Your task to perform on an android device: turn on showing notifications on the lock screen Image 0: 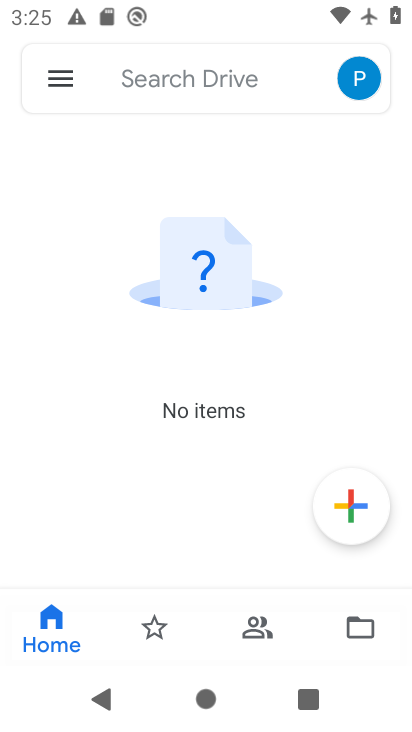
Step 0: press home button
Your task to perform on an android device: turn on showing notifications on the lock screen Image 1: 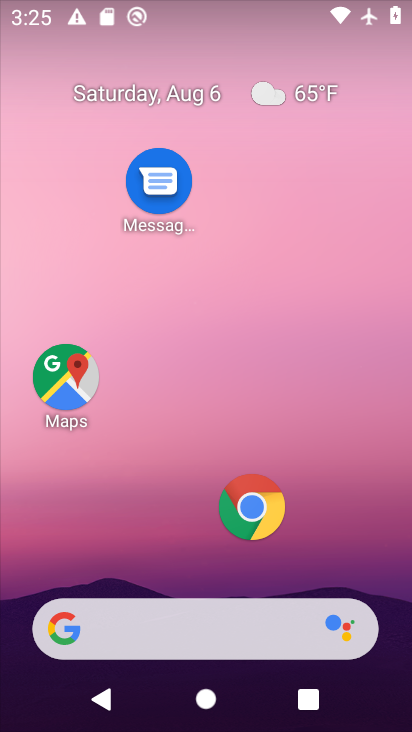
Step 1: drag from (130, 548) to (3, 216)
Your task to perform on an android device: turn on showing notifications on the lock screen Image 2: 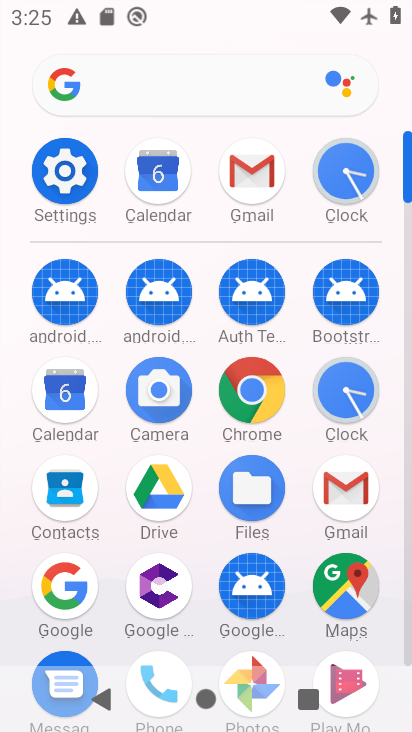
Step 2: click (63, 165)
Your task to perform on an android device: turn on showing notifications on the lock screen Image 3: 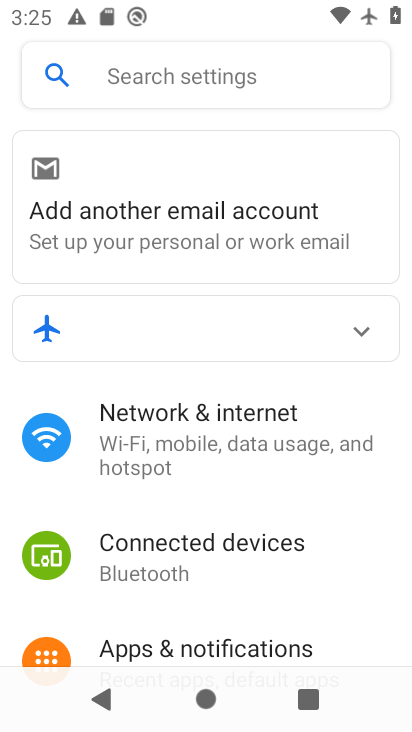
Step 3: drag from (248, 565) to (273, 404)
Your task to perform on an android device: turn on showing notifications on the lock screen Image 4: 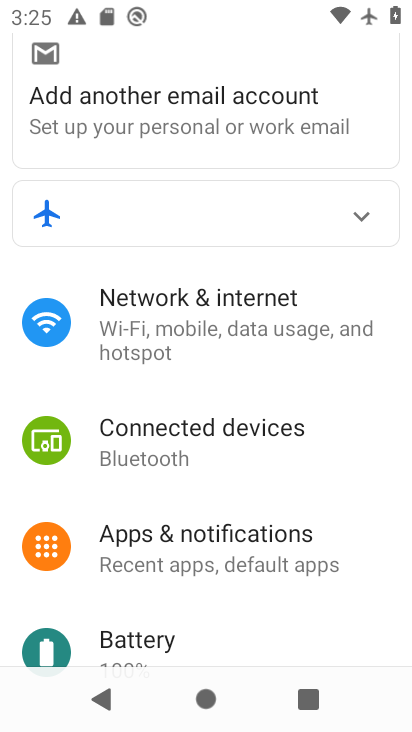
Step 4: click (206, 546)
Your task to perform on an android device: turn on showing notifications on the lock screen Image 5: 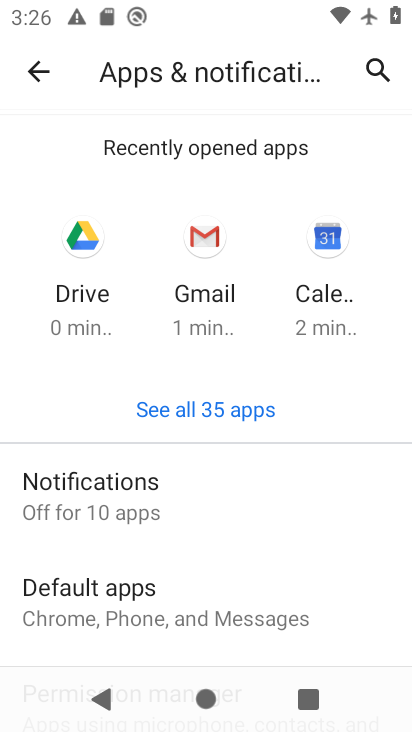
Step 5: drag from (202, 554) to (214, 402)
Your task to perform on an android device: turn on showing notifications on the lock screen Image 6: 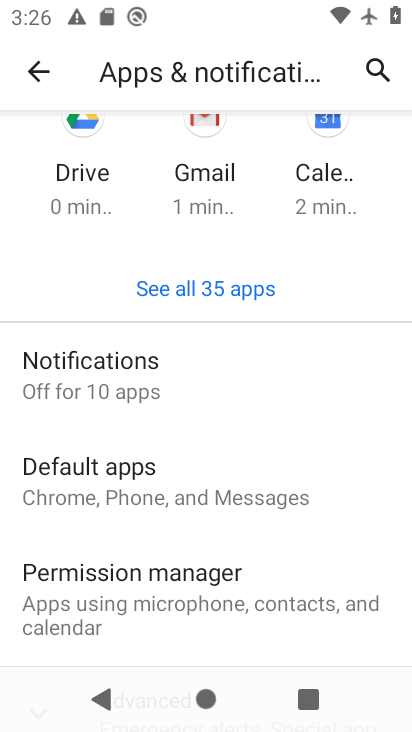
Step 6: click (84, 362)
Your task to perform on an android device: turn on showing notifications on the lock screen Image 7: 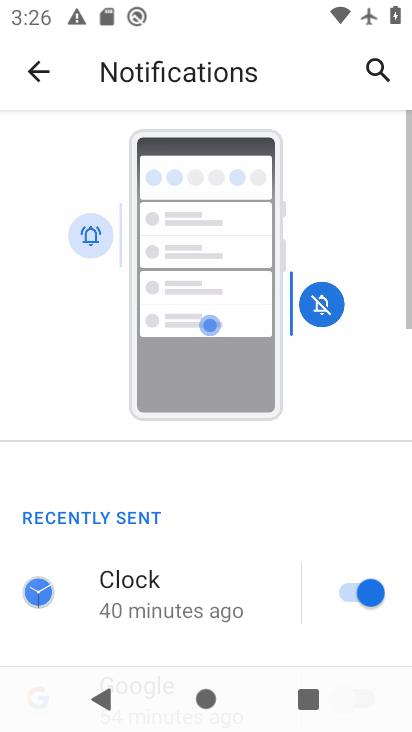
Step 7: drag from (222, 570) to (228, 336)
Your task to perform on an android device: turn on showing notifications on the lock screen Image 8: 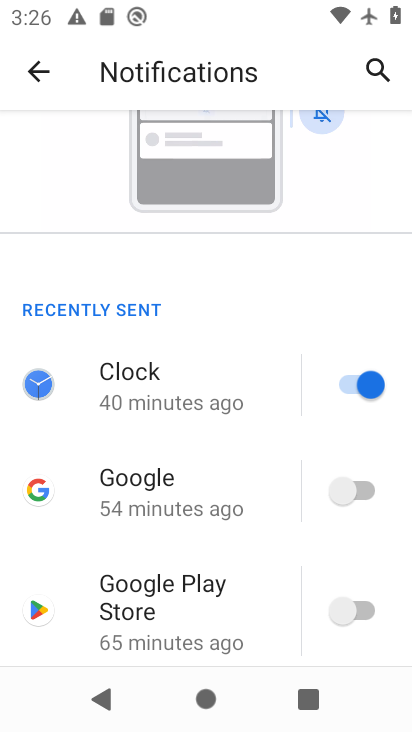
Step 8: drag from (214, 509) to (233, 372)
Your task to perform on an android device: turn on showing notifications on the lock screen Image 9: 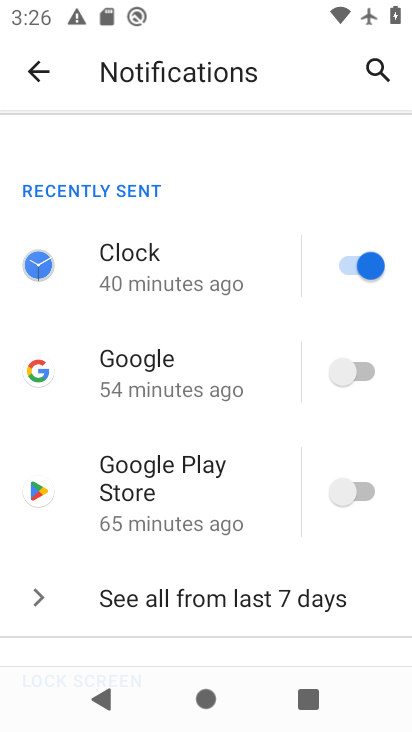
Step 9: drag from (223, 510) to (250, 234)
Your task to perform on an android device: turn on showing notifications on the lock screen Image 10: 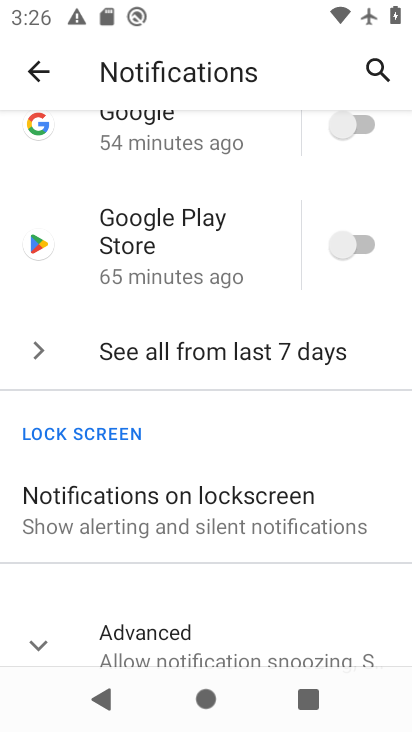
Step 10: click (219, 507)
Your task to perform on an android device: turn on showing notifications on the lock screen Image 11: 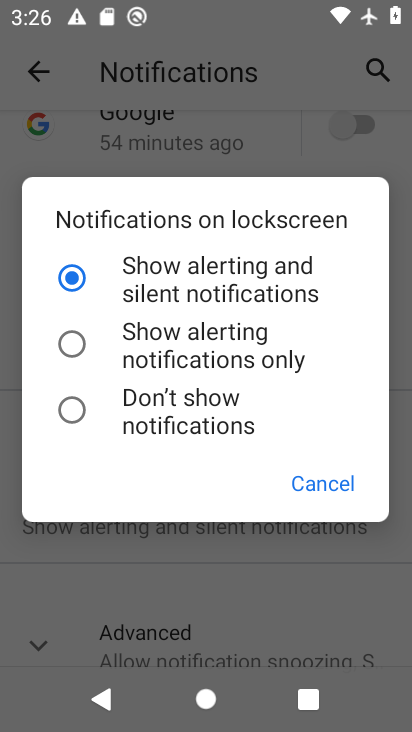
Step 11: task complete